Your task to perform on an android device: empty trash in the gmail app Image 0: 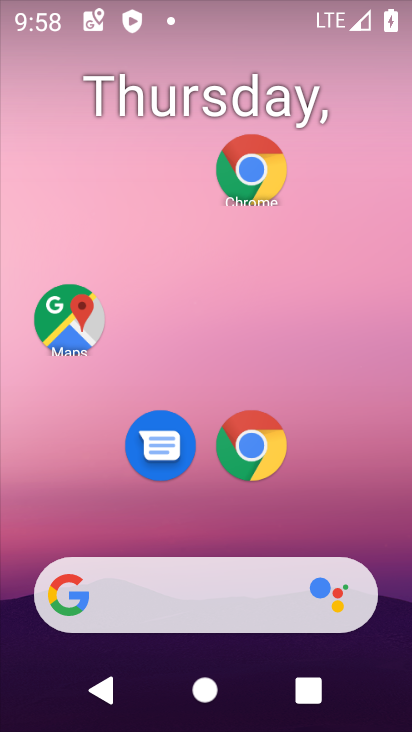
Step 0: drag from (234, 539) to (153, 26)
Your task to perform on an android device: empty trash in the gmail app Image 1: 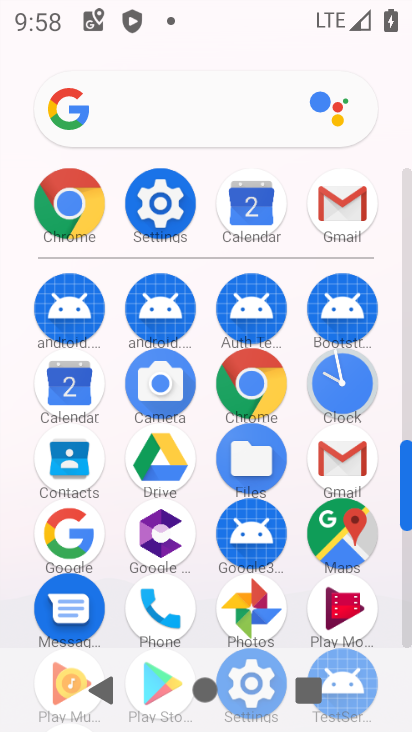
Step 1: click (343, 477)
Your task to perform on an android device: empty trash in the gmail app Image 2: 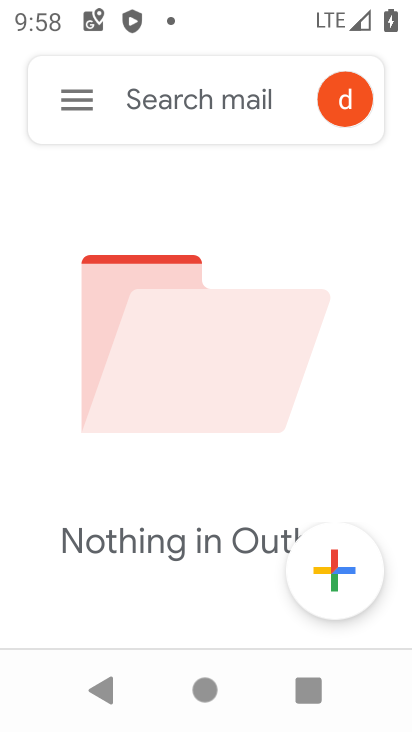
Step 2: click (78, 108)
Your task to perform on an android device: empty trash in the gmail app Image 3: 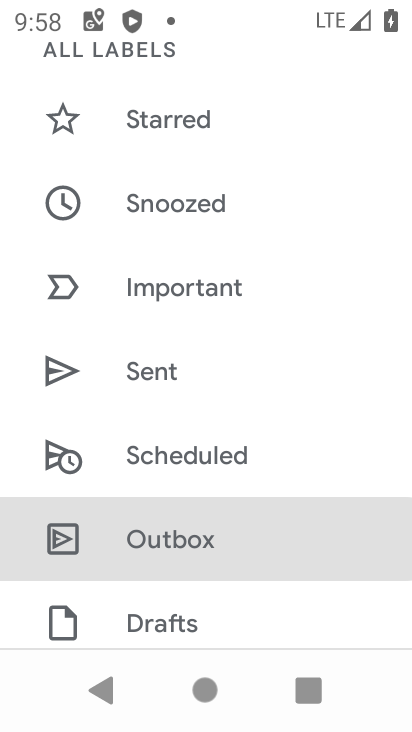
Step 3: drag from (176, 423) to (123, 78)
Your task to perform on an android device: empty trash in the gmail app Image 4: 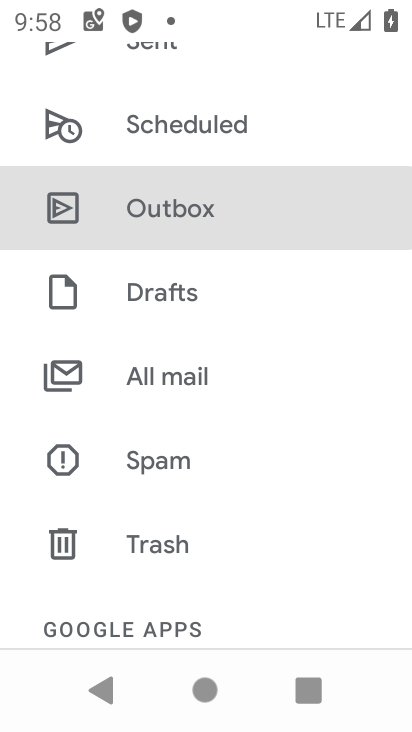
Step 4: click (165, 538)
Your task to perform on an android device: empty trash in the gmail app Image 5: 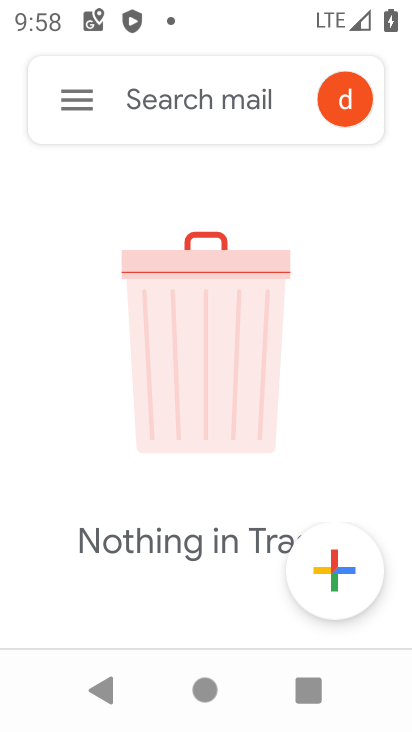
Step 5: task complete